Your task to perform on an android device: Open maps Image 0: 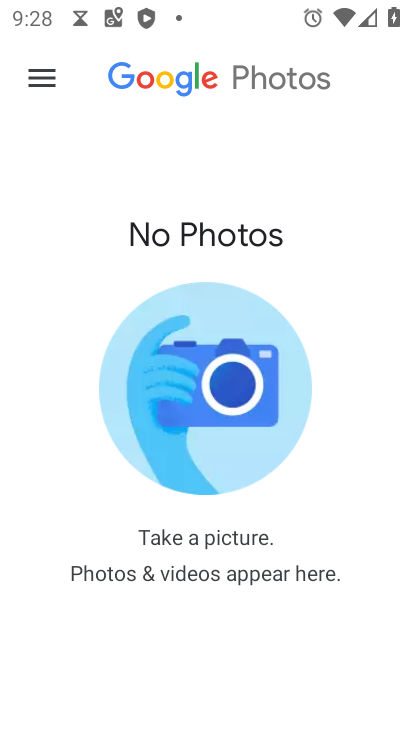
Step 0: press back button
Your task to perform on an android device: Open maps Image 1: 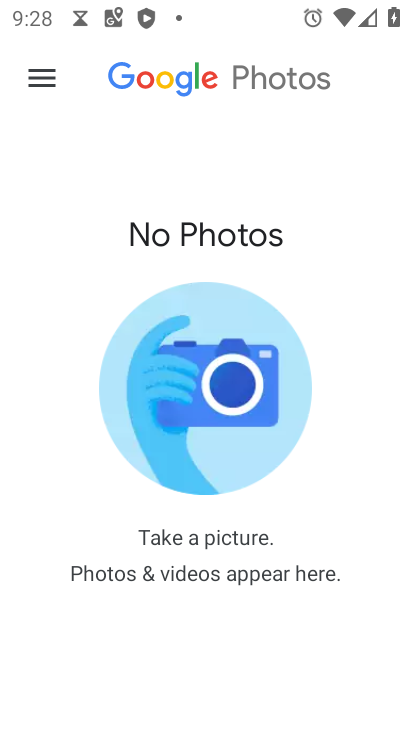
Step 1: press back button
Your task to perform on an android device: Open maps Image 2: 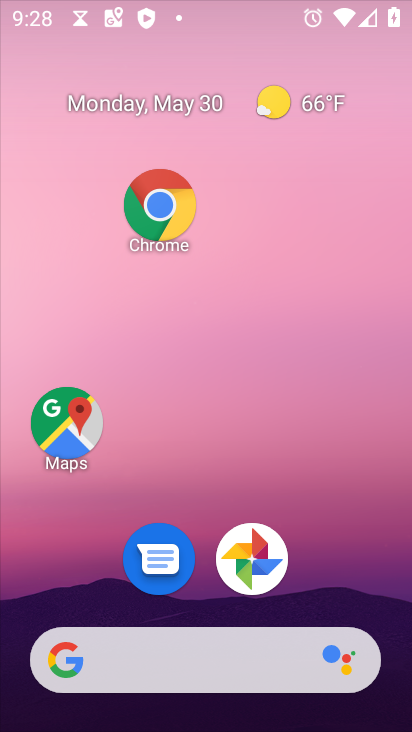
Step 2: press back button
Your task to perform on an android device: Open maps Image 3: 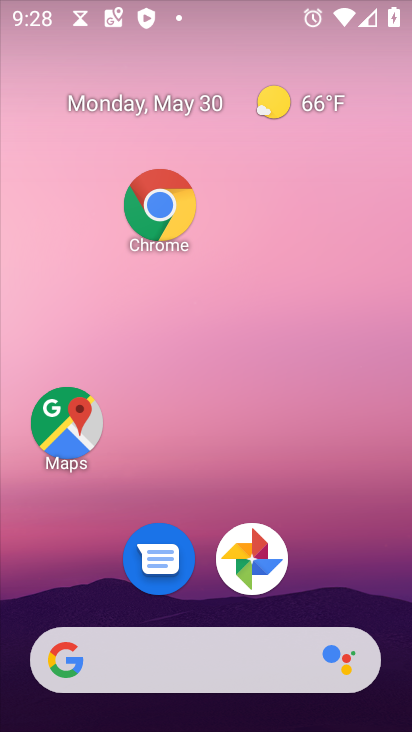
Step 3: press home button
Your task to perform on an android device: Open maps Image 4: 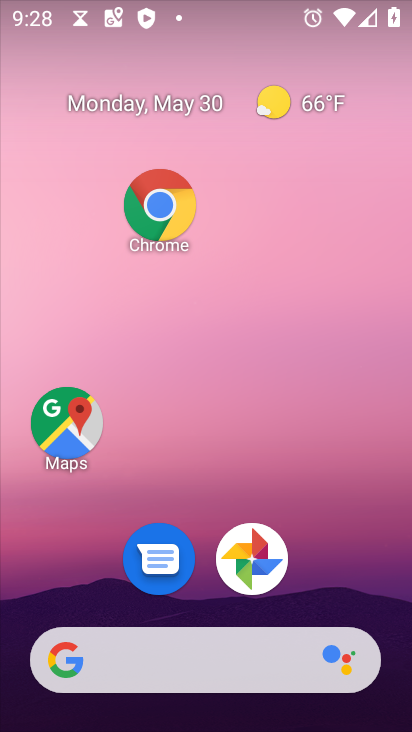
Step 4: press home button
Your task to perform on an android device: Open maps Image 5: 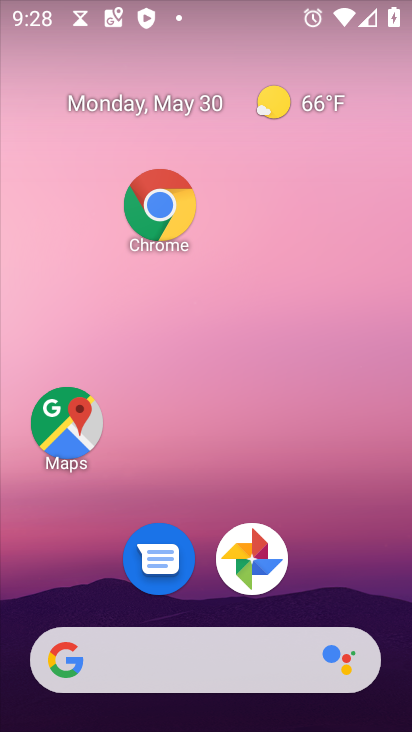
Step 5: drag from (98, 24) to (405, 451)
Your task to perform on an android device: Open maps Image 6: 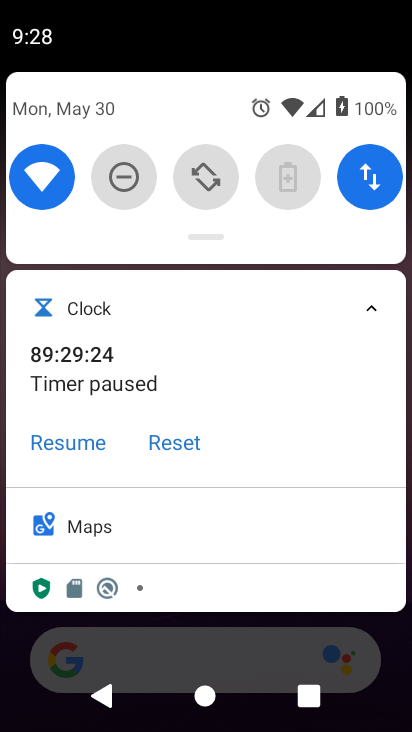
Step 6: drag from (251, 693) to (168, 185)
Your task to perform on an android device: Open maps Image 7: 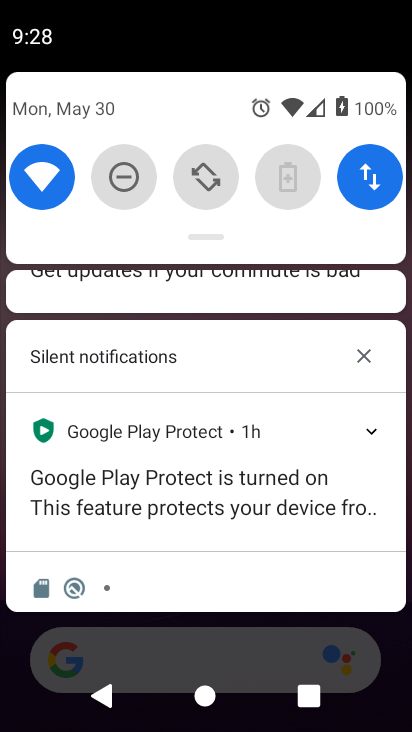
Step 7: click (188, 57)
Your task to perform on an android device: Open maps Image 8: 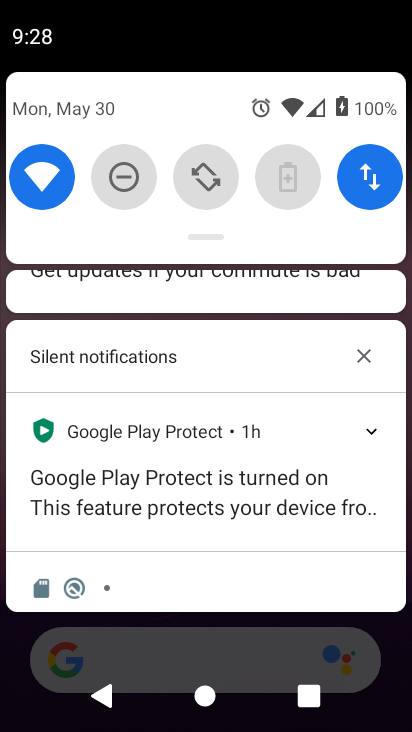
Step 8: click (374, 635)
Your task to perform on an android device: Open maps Image 9: 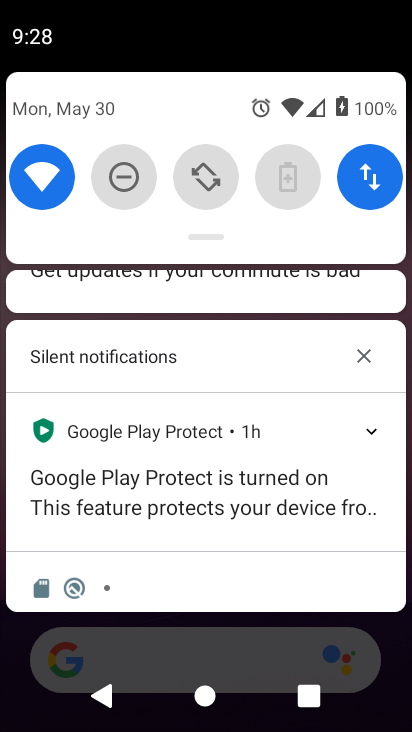
Step 9: click (375, 635)
Your task to perform on an android device: Open maps Image 10: 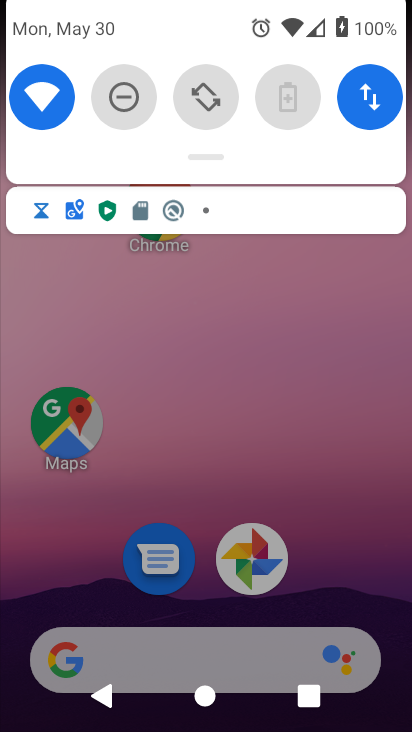
Step 10: click (375, 635)
Your task to perform on an android device: Open maps Image 11: 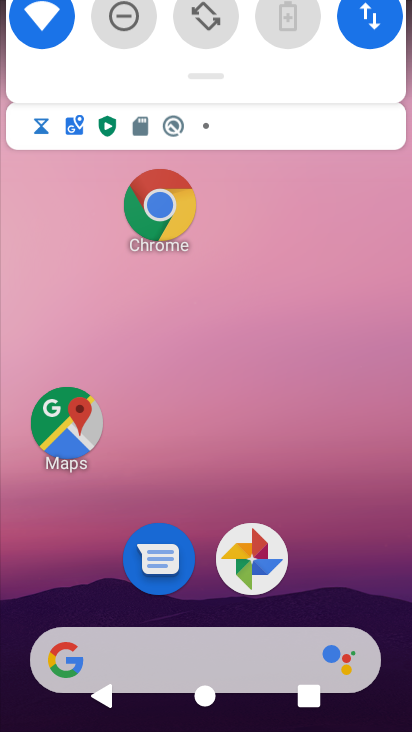
Step 11: click (376, 639)
Your task to perform on an android device: Open maps Image 12: 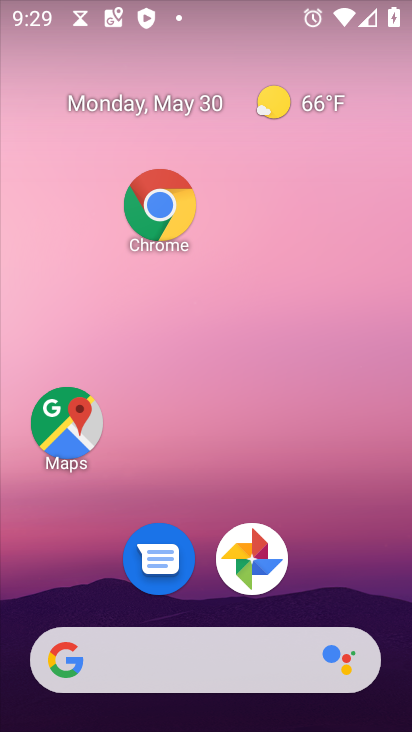
Step 12: drag from (297, 617) to (271, 78)
Your task to perform on an android device: Open maps Image 13: 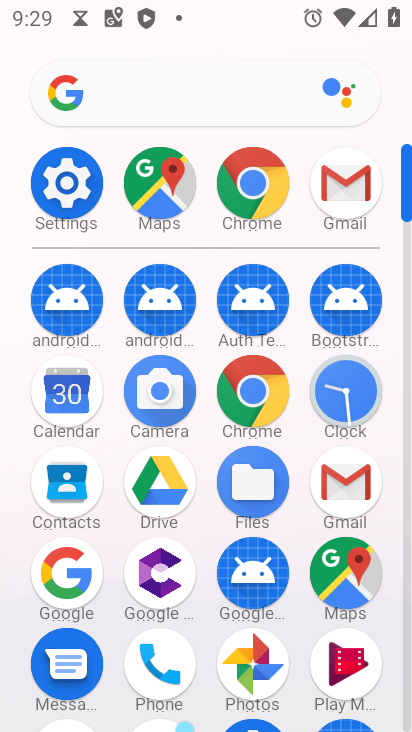
Step 13: click (338, 568)
Your task to perform on an android device: Open maps Image 14: 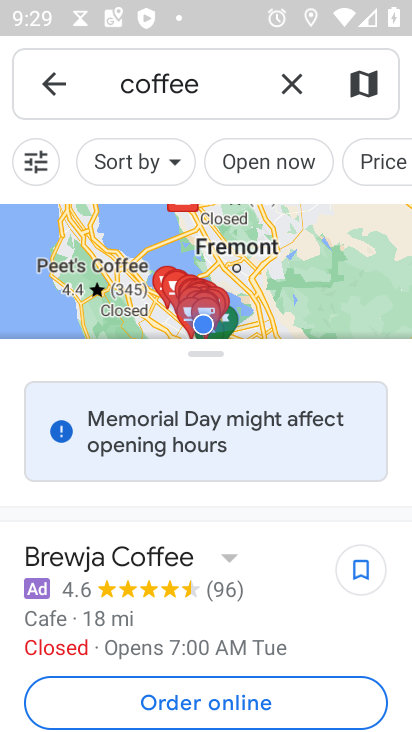
Step 14: click (46, 78)
Your task to perform on an android device: Open maps Image 15: 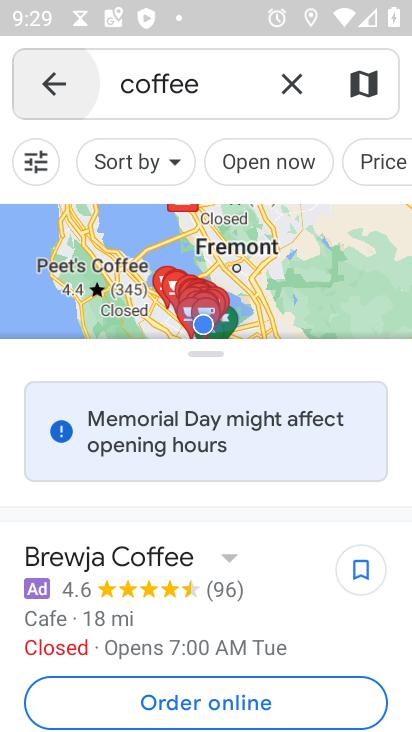
Step 15: click (50, 76)
Your task to perform on an android device: Open maps Image 16: 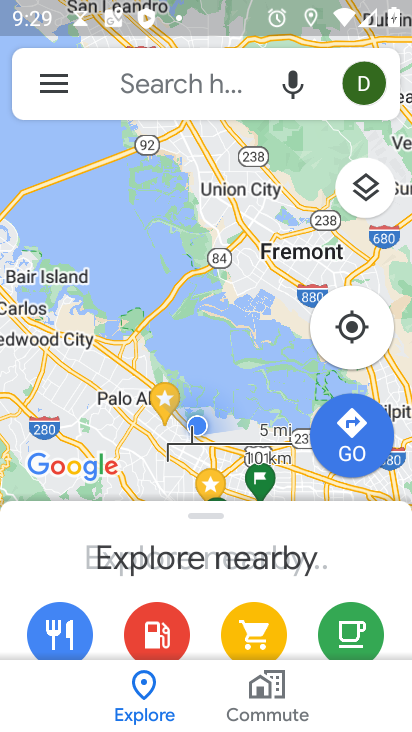
Step 16: click (55, 87)
Your task to perform on an android device: Open maps Image 17: 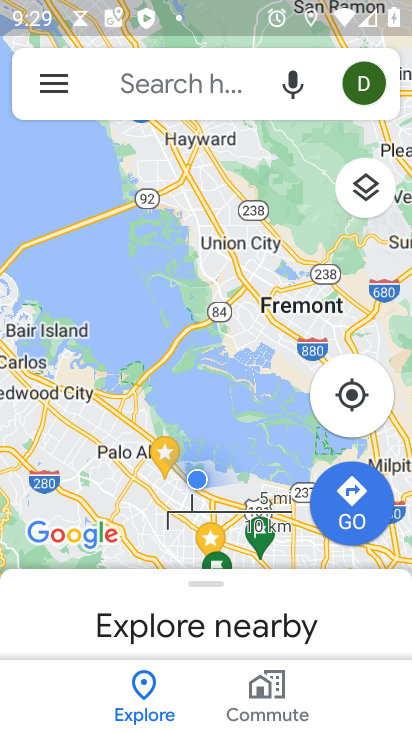
Step 17: click (55, 88)
Your task to perform on an android device: Open maps Image 18: 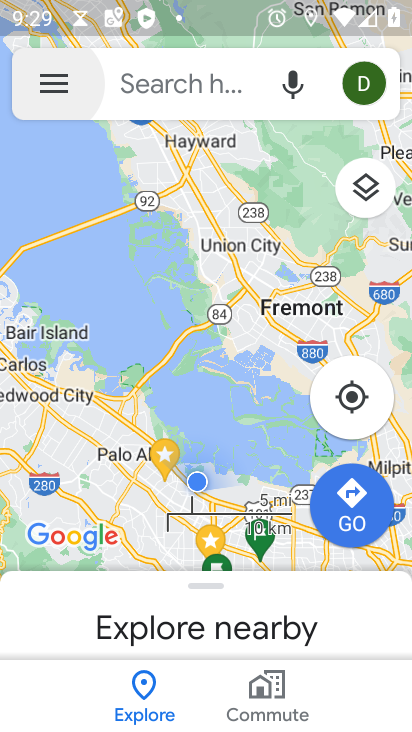
Step 18: click (64, 112)
Your task to perform on an android device: Open maps Image 19: 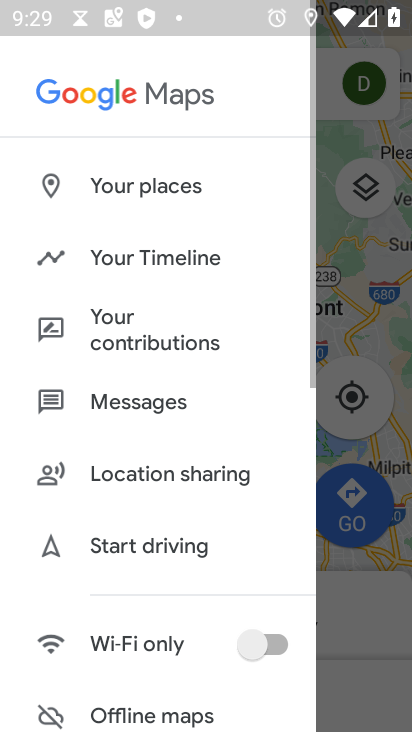
Step 19: task complete